Your task to perform on an android device: Search for sushi restaurants on Maps Image 0: 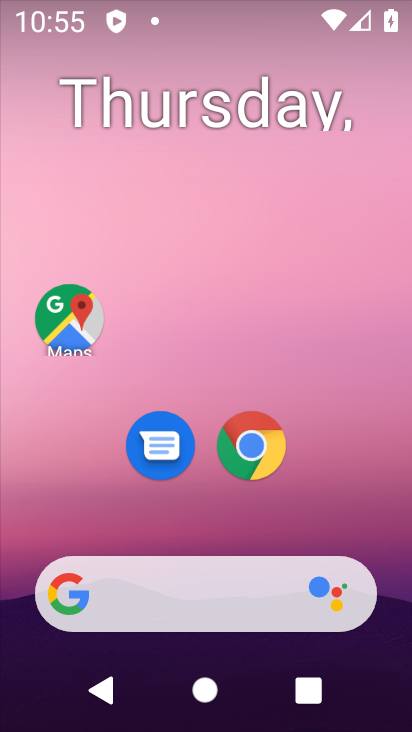
Step 0: press home button
Your task to perform on an android device: Search for sushi restaurants on Maps Image 1: 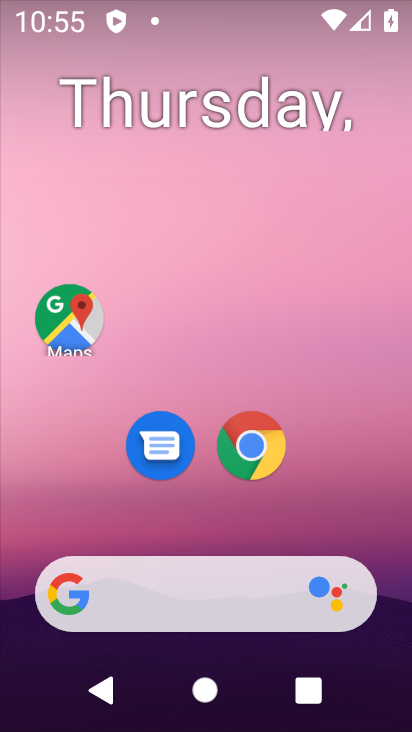
Step 1: drag from (383, 615) to (278, 17)
Your task to perform on an android device: Search for sushi restaurants on Maps Image 2: 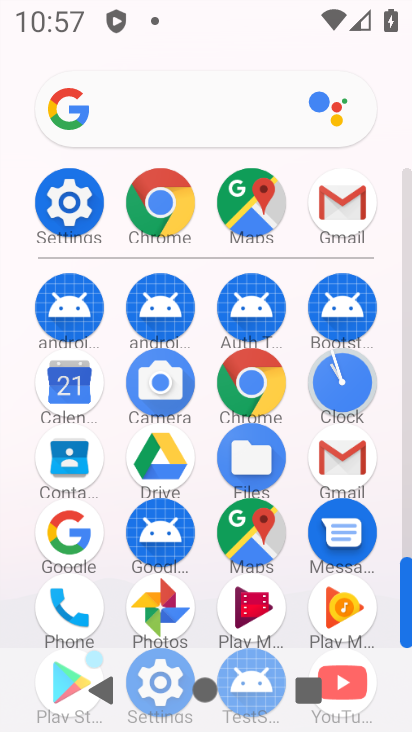
Step 2: click (268, 519)
Your task to perform on an android device: Search for sushi restaurants on Maps Image 3: 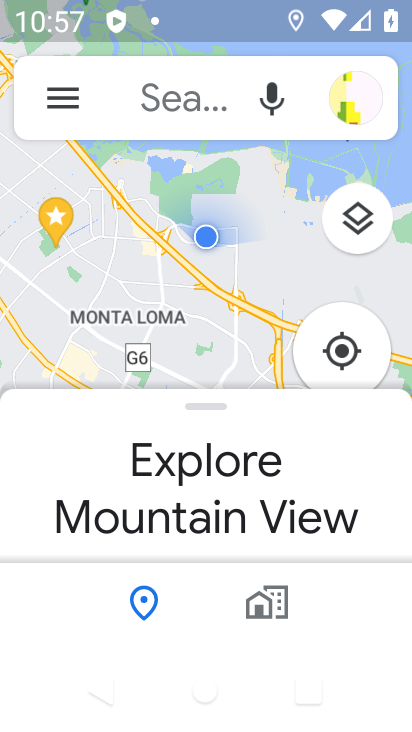
Step 3: click (173, 109)
Your task to perform on an android device: Search for sushi restaurants on Maps Image 4: 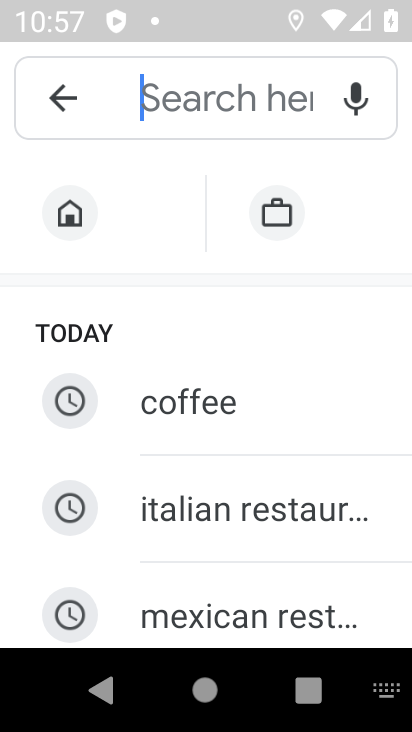
Step 4: drag from (181, 571) to (220, 175)
Your task to perform on an android device: Search for sushi restaurants on Maps Image 5: 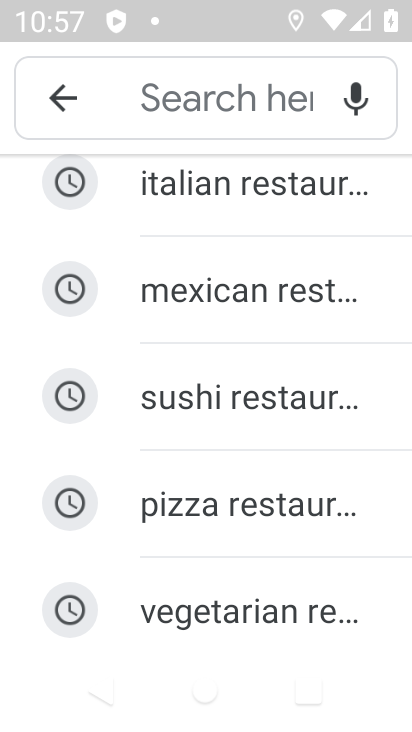
Step 5: click (219, 411)
Your task to perform on an android device: Search for sushi restaurants on Maps Image 6: 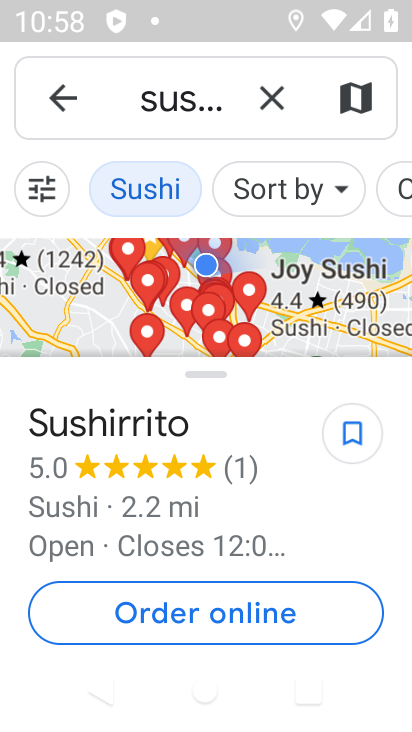
Step 6: task complete